Your task to perform on an android device: Open Youtube and go to the subscriptions tab Image 0: 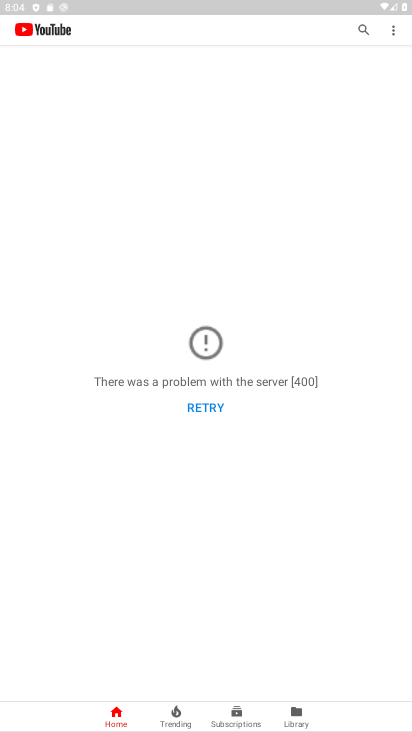
Step 0: press home button
Your task to perform on an android device: Open Youtube and go to the subscriptions tab Image 1: 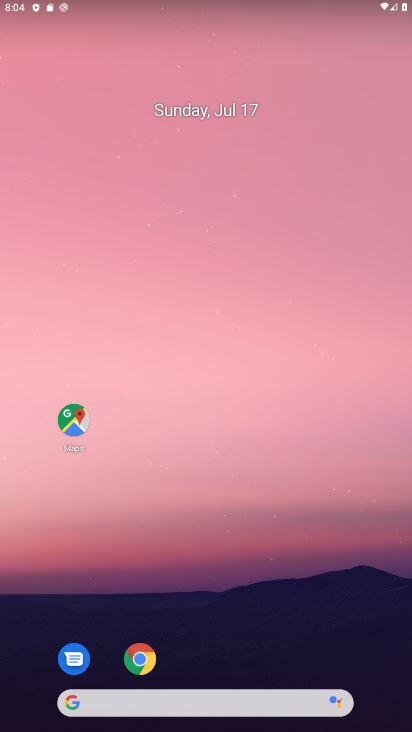
Step 1: drag from (230, 704) to (242, 243)
Your task to perform on an android device: Open Youtube and go to the subscriptions tab Image 2: 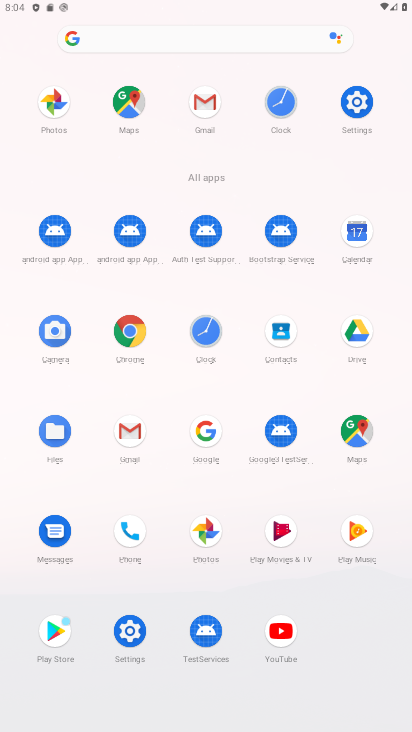
Step 2: click (281, 632)
Your task to perform on an android device: Open Youtube and go to the subscriptions tab Image 3: 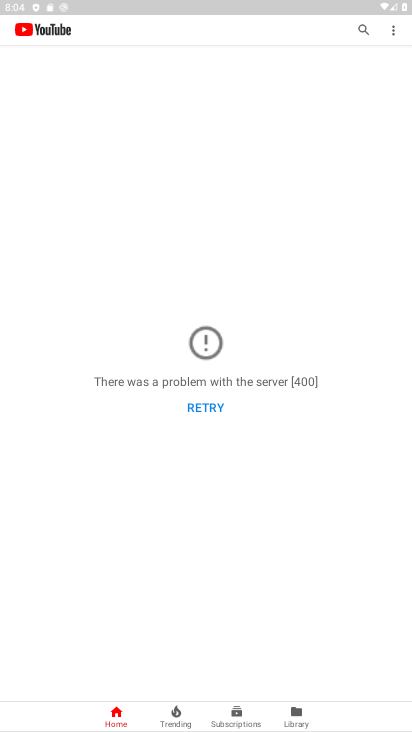
Step 3: click (226, 718)
Your task to perform on an android device: Open Youtube and go to the subscriptions tab Image 4: 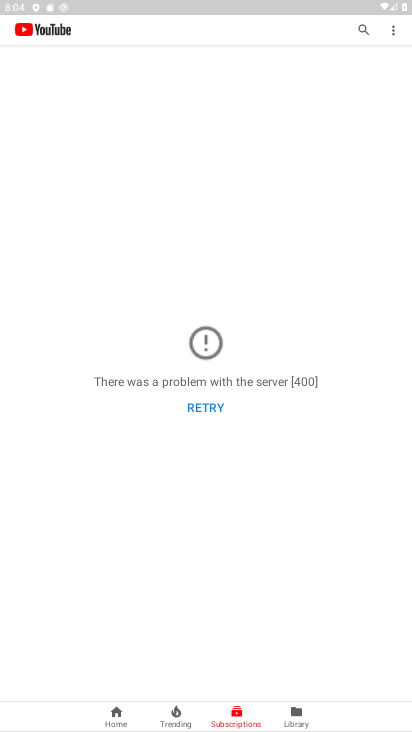
Step 4: task complete